Your task to perform on an android device: toggle priority inbox in the gmail app Image 0: 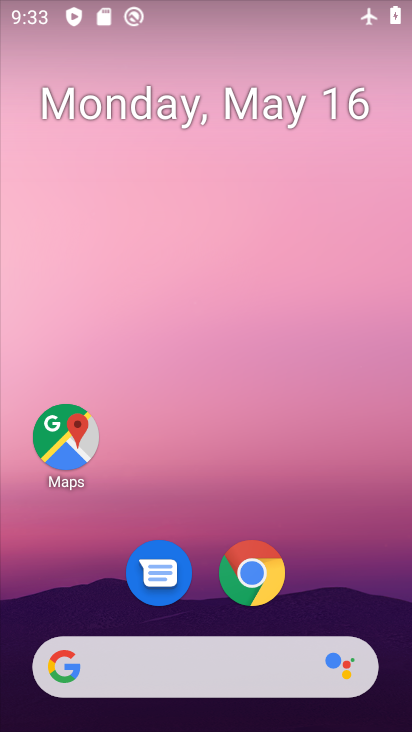
Step 0: drag from (324, 566) to (169, 43)
Your task to perform on an android device: toggle priority inbox in the gmail app Image 1: 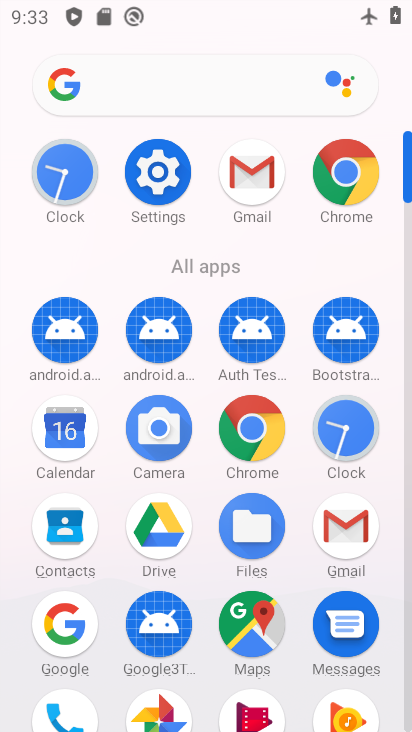
Step 1: click (258, 180)
Your task to perform on an android device: toggle priority inbox in the gmail app Image 2: 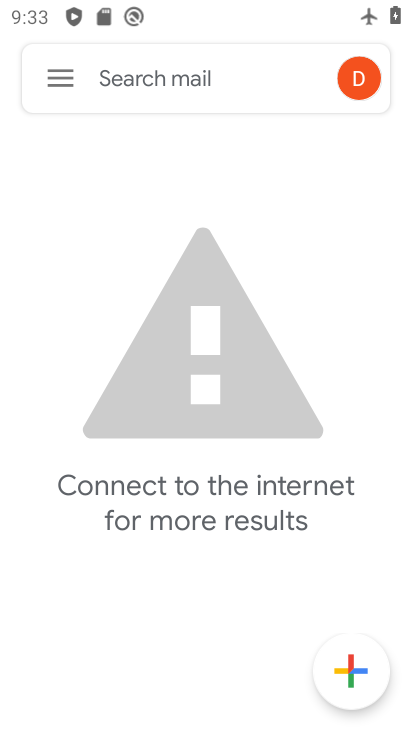
Step 2: click (62, 79)
Your task to perform on an android device: toggle priority inbox in the gmail app Image 3: 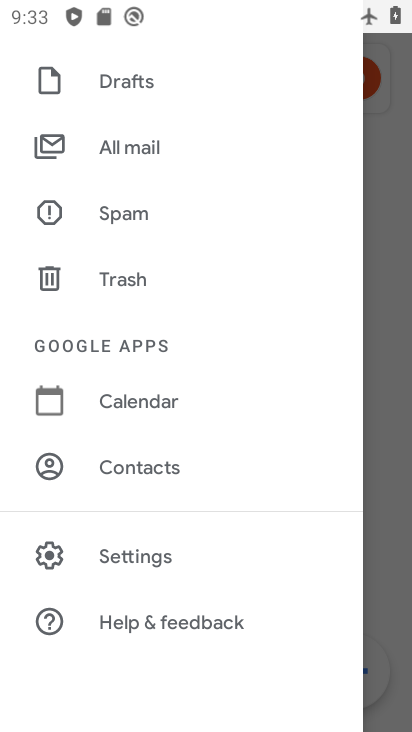
Step 3: click (132, 557)
Your task to perform on an android device: toggle priority inbox in the gmail app Image 4: 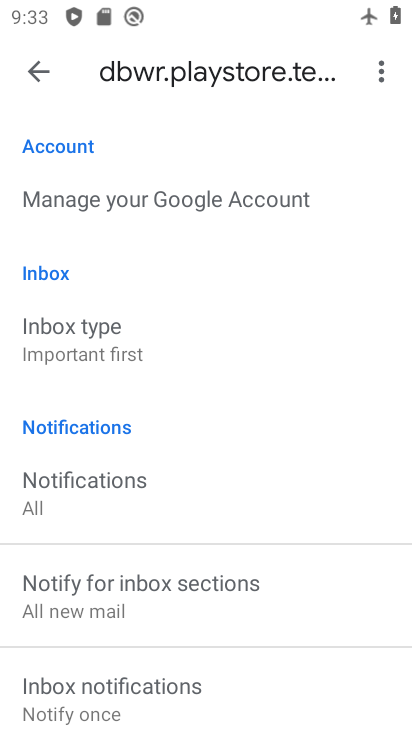
Step 4: click (121, 325)
Your task to perform on an android device: toggle priority inbox in the gmail app Image 5: 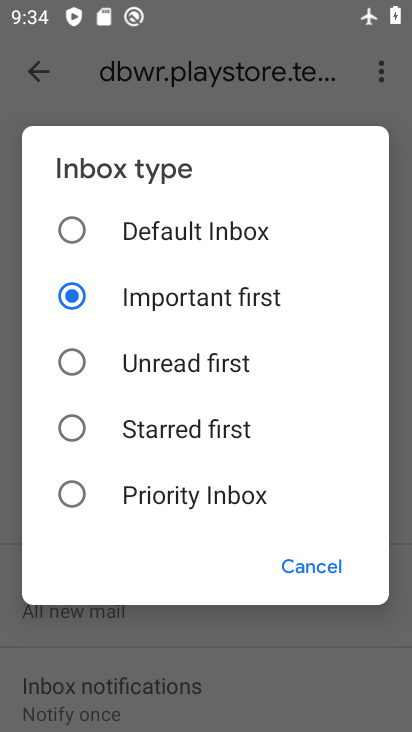
Step 5: click (147, 491)
Your task to perform on an android device: toggle priority inbox in the gmail app Image 6: 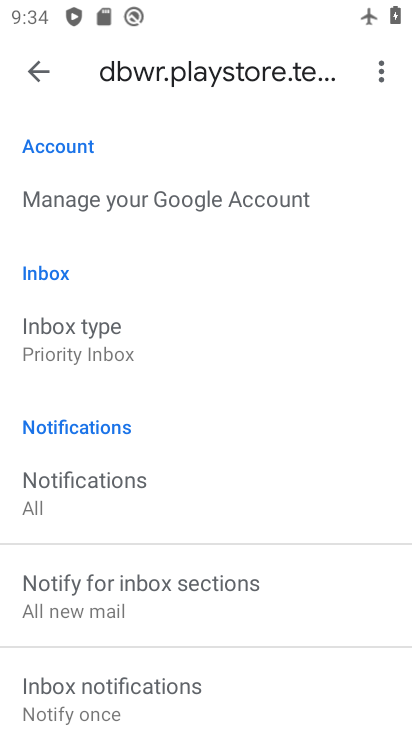
Step 6: task complete